Your task to perform on an android device: open app "Airtel Thanks" (install if not already installed) and go to login screen Image 0: 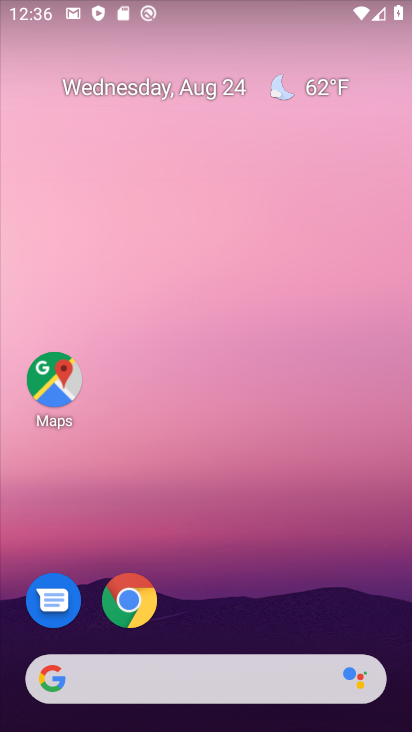
Step 0: drag from (231, 619) to (265, 75)
Your task to perform on an android device: open app "Airtel Thanks" (install if not already installed) and go to login screen Image 1: 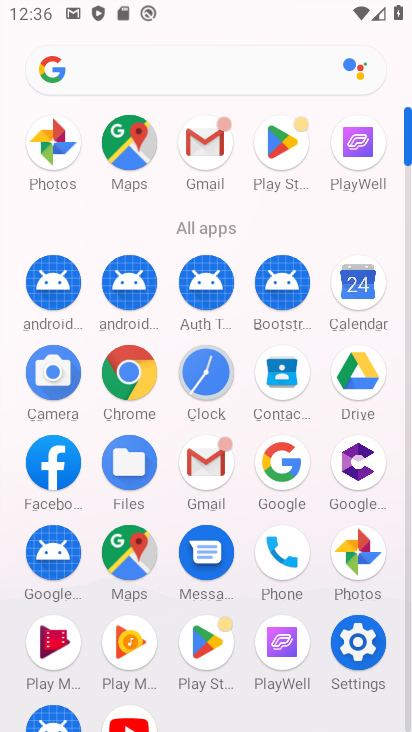
Step 1: click (127, 715)
Your task to perform on an android device: open app "Airtel Thanks" (install if not already installed) and go to login screen Image 2: 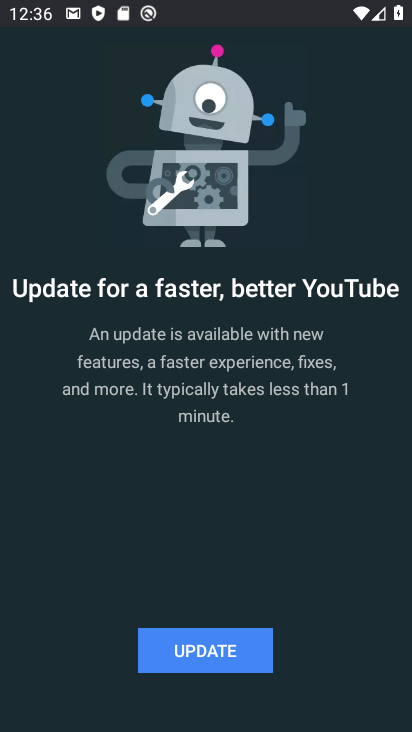
Step 2: click (199, 661)
Your task to perform on an android device: open app "Airtel Thanks" (install if not already installed) and go to login screen Image 3: 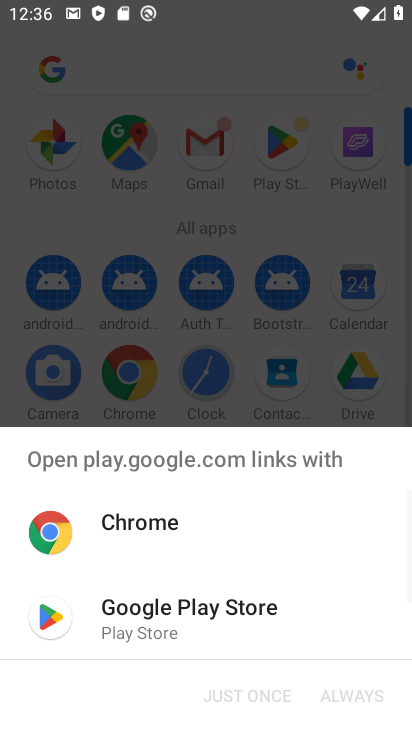
Step 3: click (125, 604)
Your task to perform on an android device: open app "Airtel Thanks" (install if not already installed) and go to login screen Image 4: 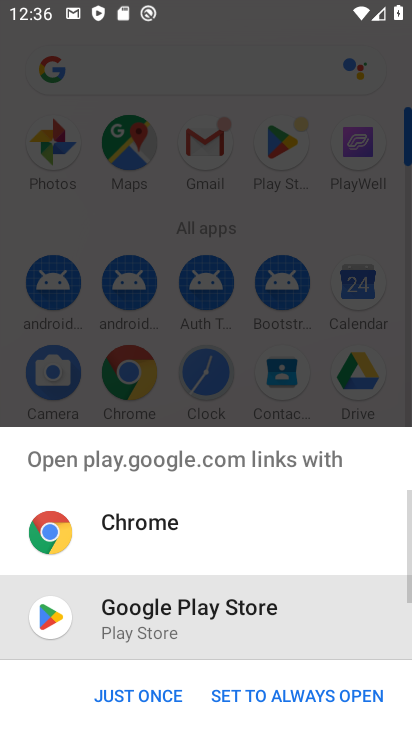
Step 4: click (145, 689)
Your task to perform on an android device: open app "Airtel Thanks" (install if not already installed) and go to login screen Image 5: 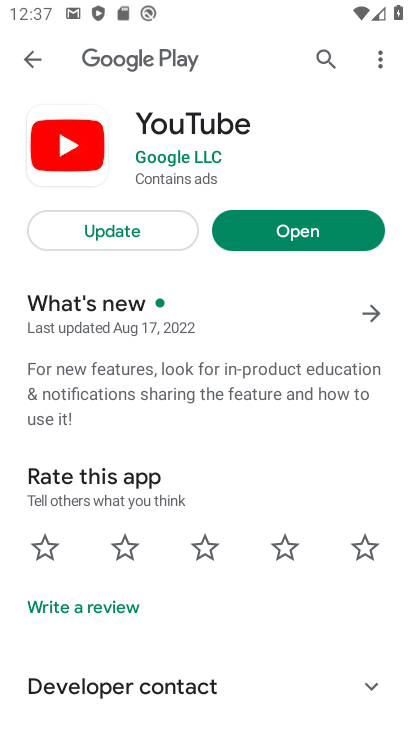
Step 5: task complete